Your task to perform on an android device: change the clock display to digital Image 0: 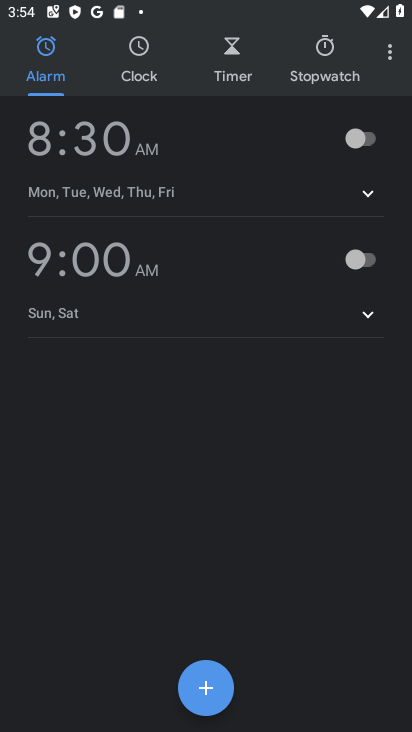
Step 0: press home button
Your task to perform on an android device: change the clock display to digital Image 1: 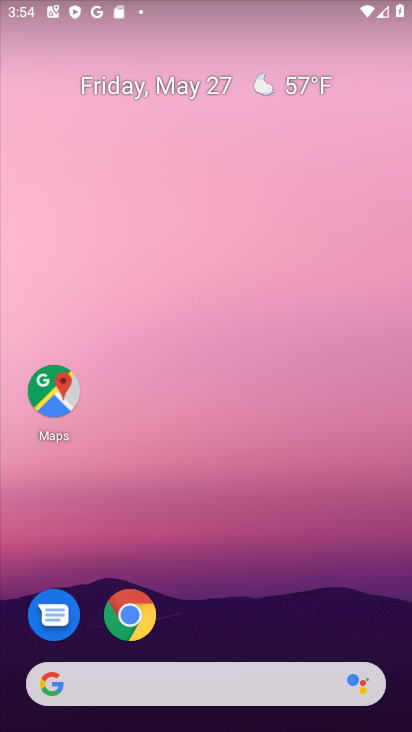
Step 1: drag from (239, 619) to (179, 98)
Your task to perform on an android device: change the clock display to digital Image 2: 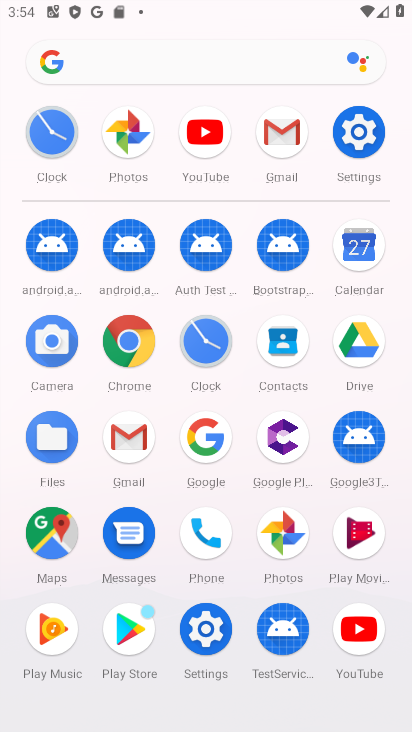
Step 2: click (203, 348)
Your task to perform on an android device: change the clock display to digital Image 3: 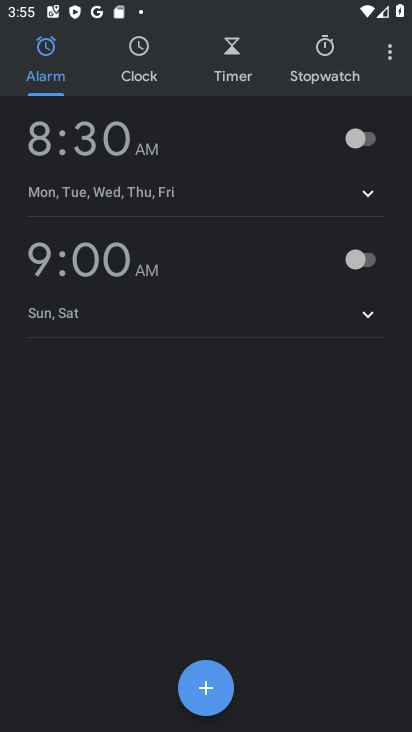
Step 3: click (381, 58)
Your task to perform on an android device: change the clock display to digital Image 4: 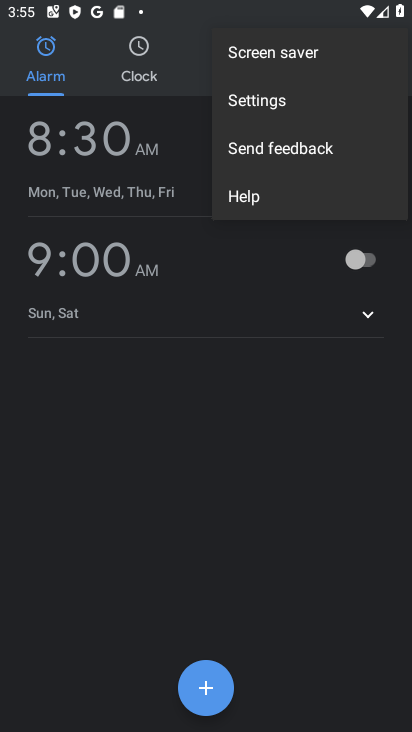
Step 4: click (302, 112)
Your task to perform on an android device: change the clock display to digital Image 5: 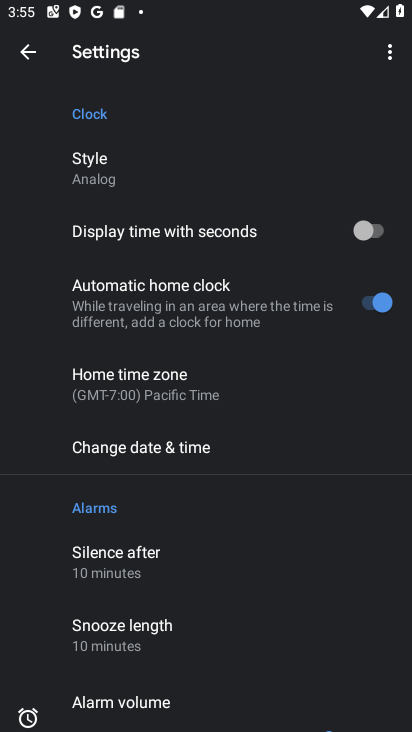
Step 5: click (90, 154)
Your task to perform on an android device: change the clock display to digital Image 6: 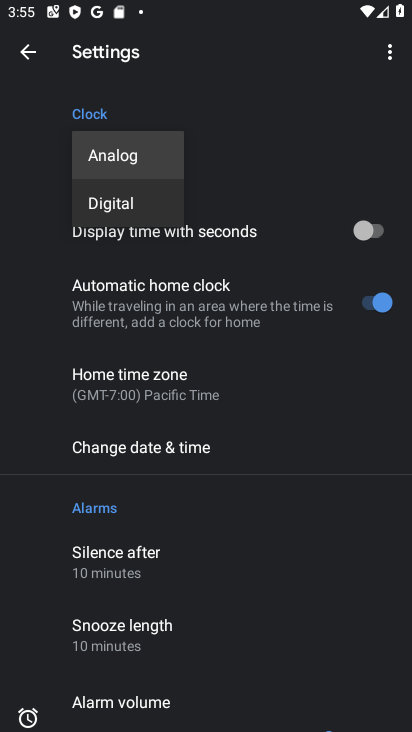
Step 6: click (128, 211)
Your task to perform on an android device: change the clock display to digital Image 7: 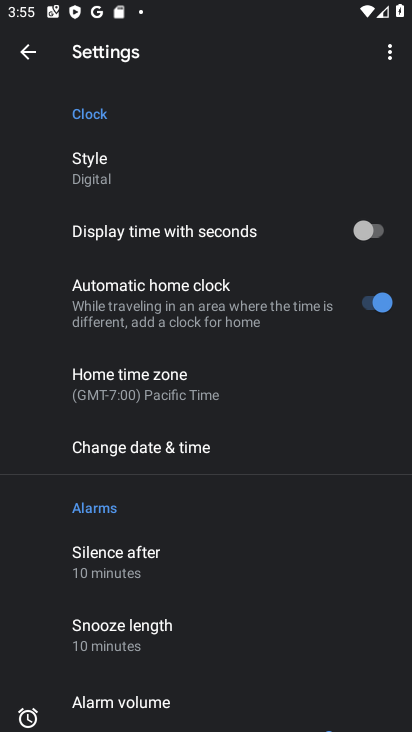
Step 7: task complete